Your task to perform on an android device: Open Youtube and go to "Your channel" Image 0: 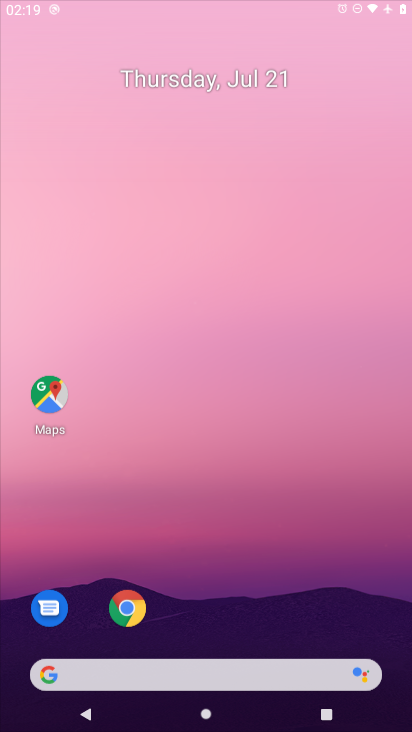
Step 0: press home button
Your task to perform on an android device: Open Youtube and go to "Your channel" Image 1: 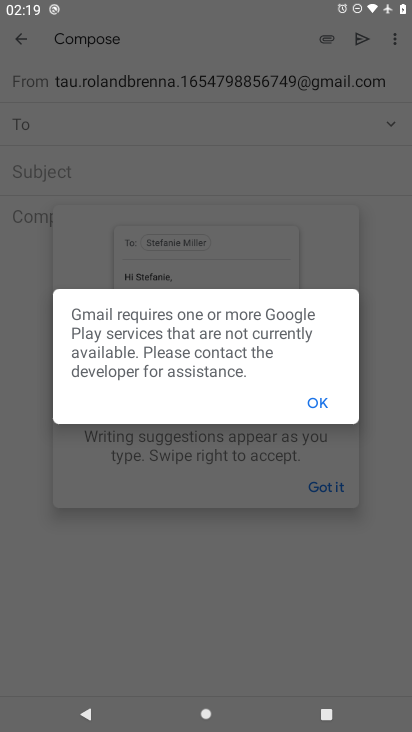
Step 1: press home button
Your task to perform on an android device: Open Youtube and go to "Your channel" Image 2: 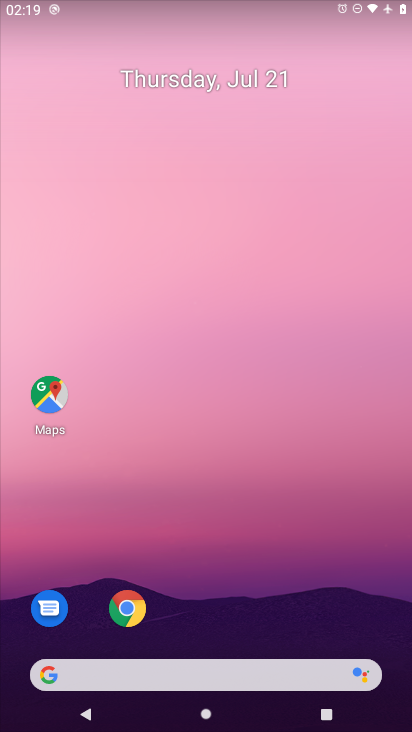
Step 2: drag from (243, 616) to (324, 55)
Your task to perform on an android device: Open Youtube and go to "Your channel" Image 3: 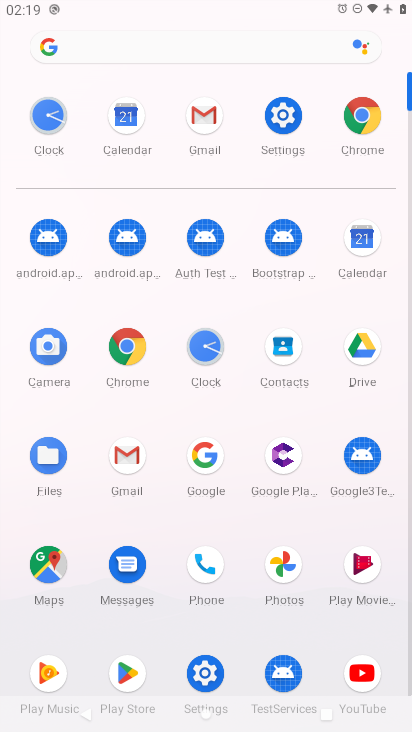
Step 3: click (359, 670)
Your task to perform on an android device: Open Youtube and go to "Your channel" Image 4: 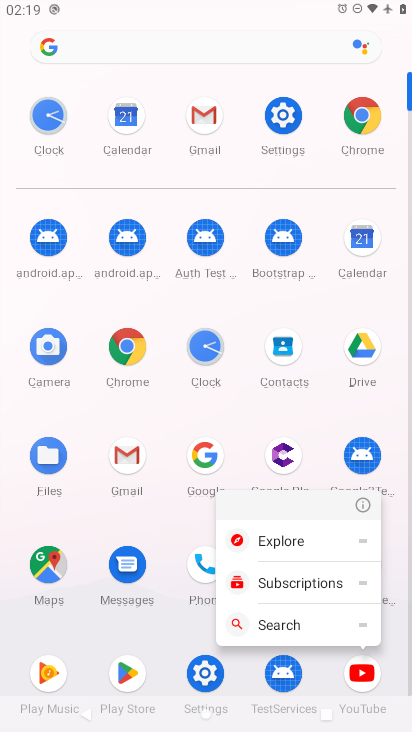
Step 4: click (357, 676)
Your task to perform on an android device: Open Youtube and go to "Your channel" Image 5: 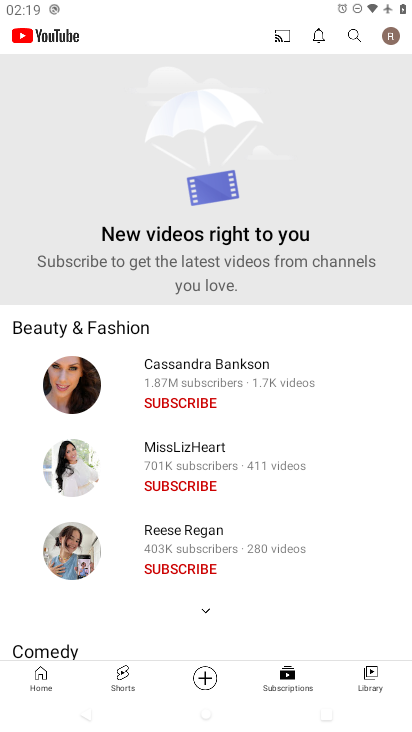
Step 5: click (387, 36)
Your task to perform on an android device: Open Youtube and go to "Your channel" Image 6: 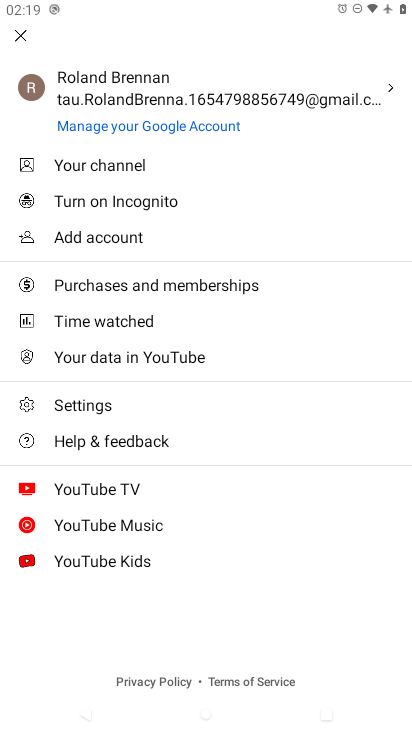
Step 6: click (103, 166)
Your task to perform on an android device: Open Youtube and go to "Your channel" Image 7: 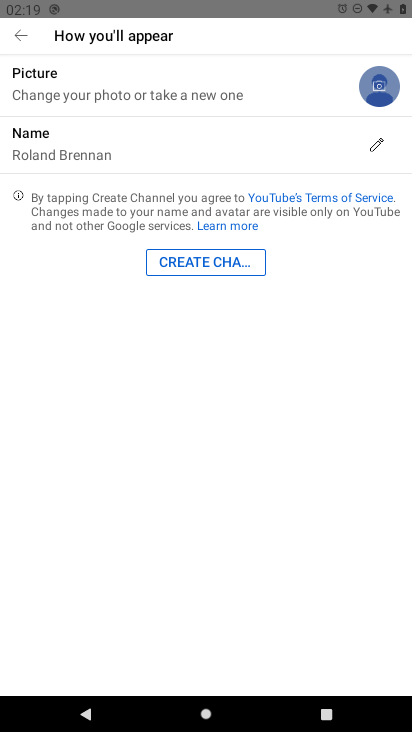
Step 7: task complete